Your task to perform on an android device: change the clock display to show seconds Image 0: 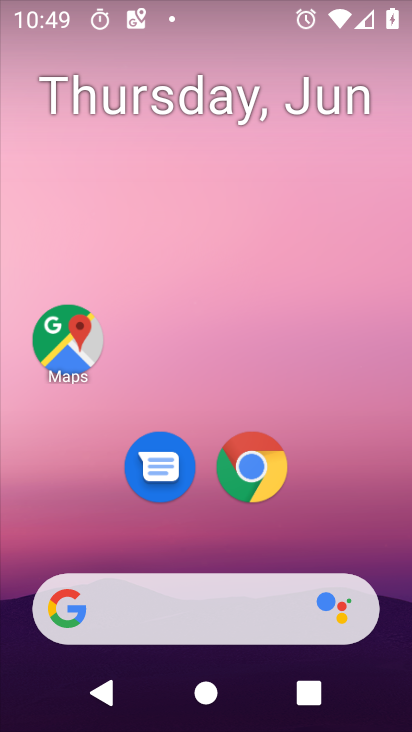
Step 0: press home button
Your task to perform on an android device: change the clock display to show seconds Image 1: 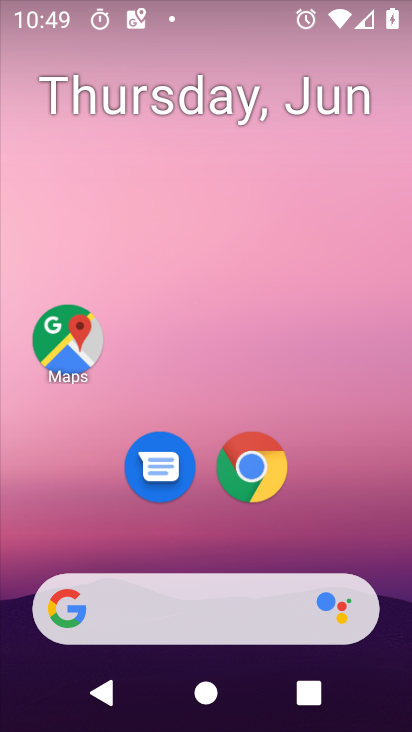
Step 1: drag from (6, 598) to (247, 148)
Your task to perform on an android device: change the clock display to show seconds Image 2: 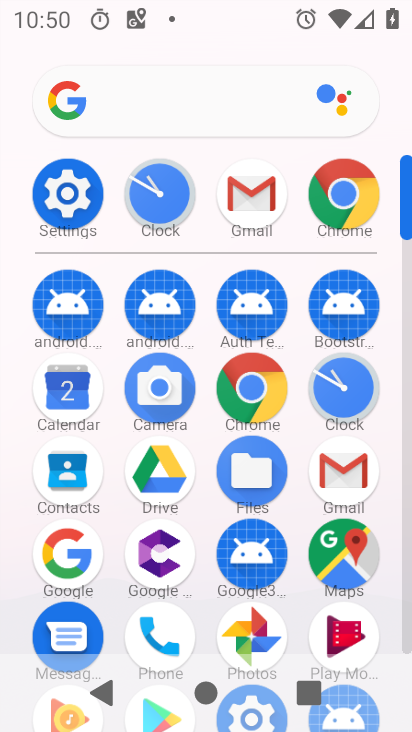
Step 2: click (347, 390)
Your task to perform on an android device: change the clock display to show seconds Image 3: 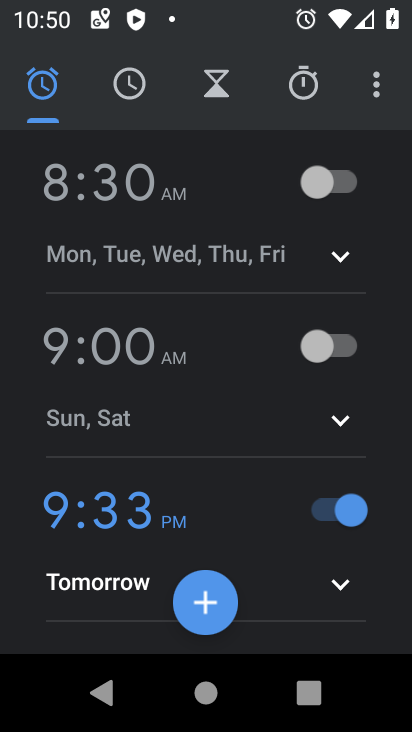
Step 3: click (385, 86)
Your task to perform on an android device: change the clock display to show seconds Image 4: 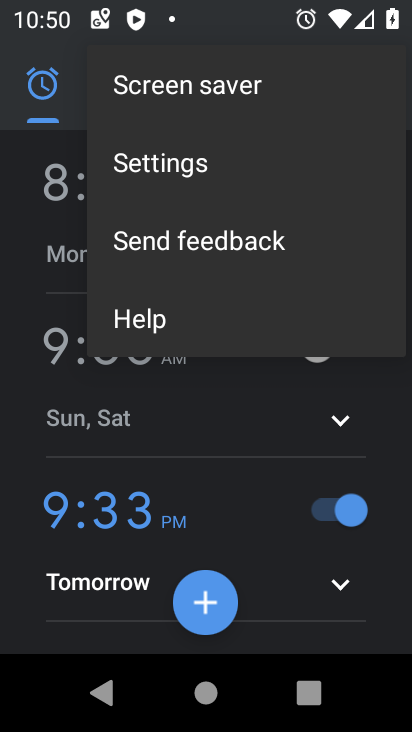
Step 4: click (211, 168)
Your task to perform on an android device: change the clock display to show seconds Image 5: 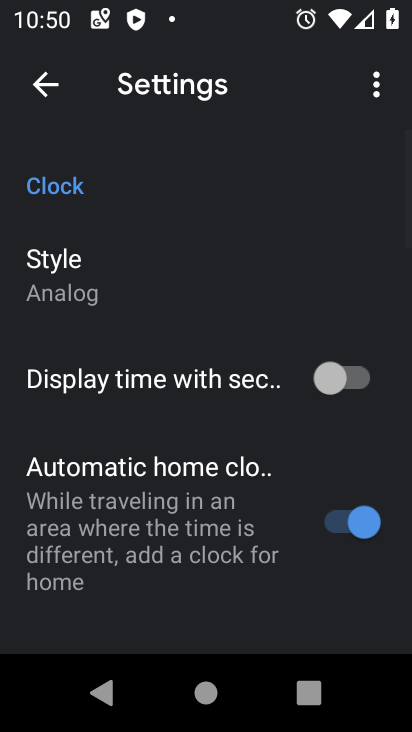
Step 5: click (341, 383)
Your task to perform on an android device: change the clock display to show seconds Image 6: 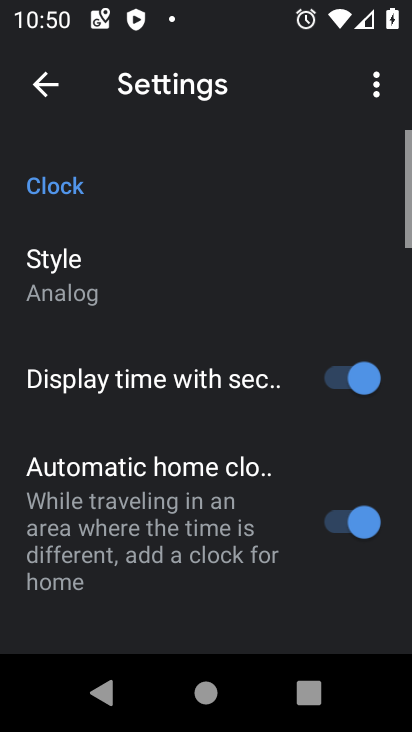
Step 6: task complete